Your task to perform on an android device: Go to internet settings Image 0: 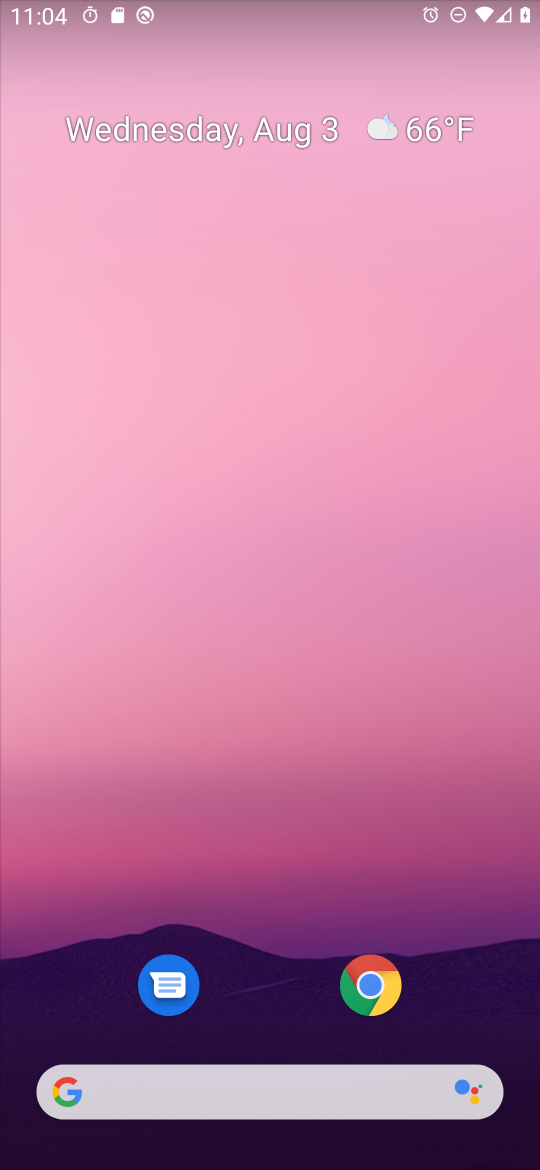
Step 0: drag from (301, 986) to (323, 294)
Your task to perform on an android device: Go to internet settings Image 1: 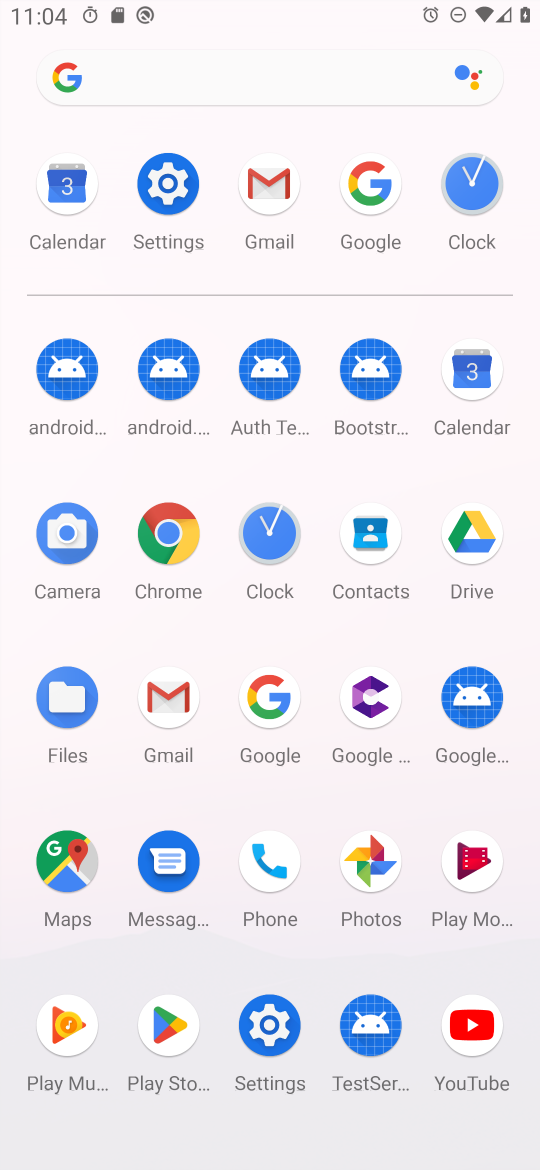
Step 1: click (191, 185)
Your task to perform on an android device: Go to internet settings Image 2: 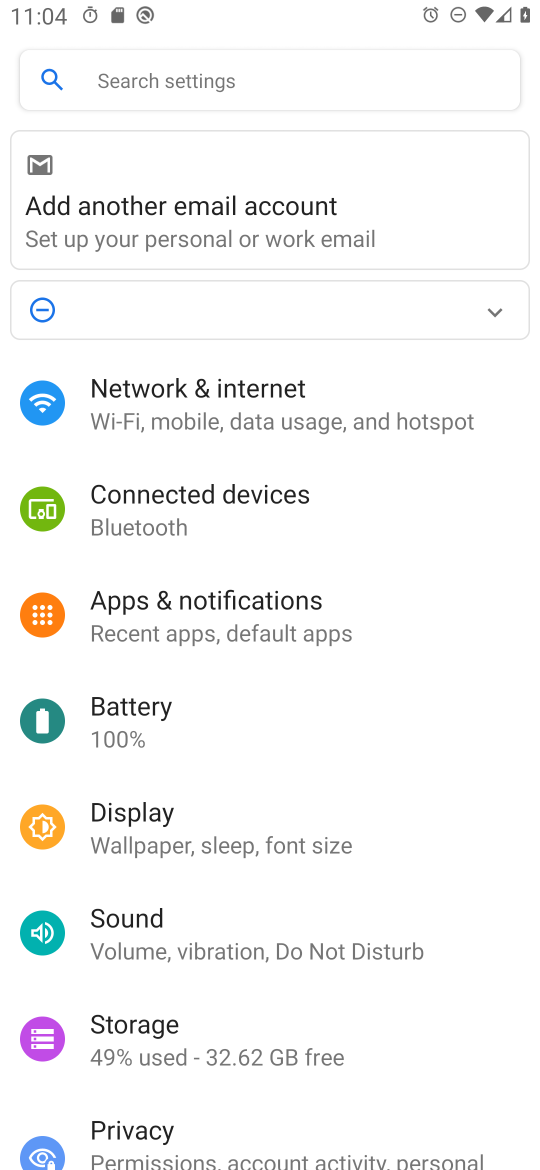
Step 2: click (290, 397)
Your task to perform on an android device: Go to internet settings Image 3: 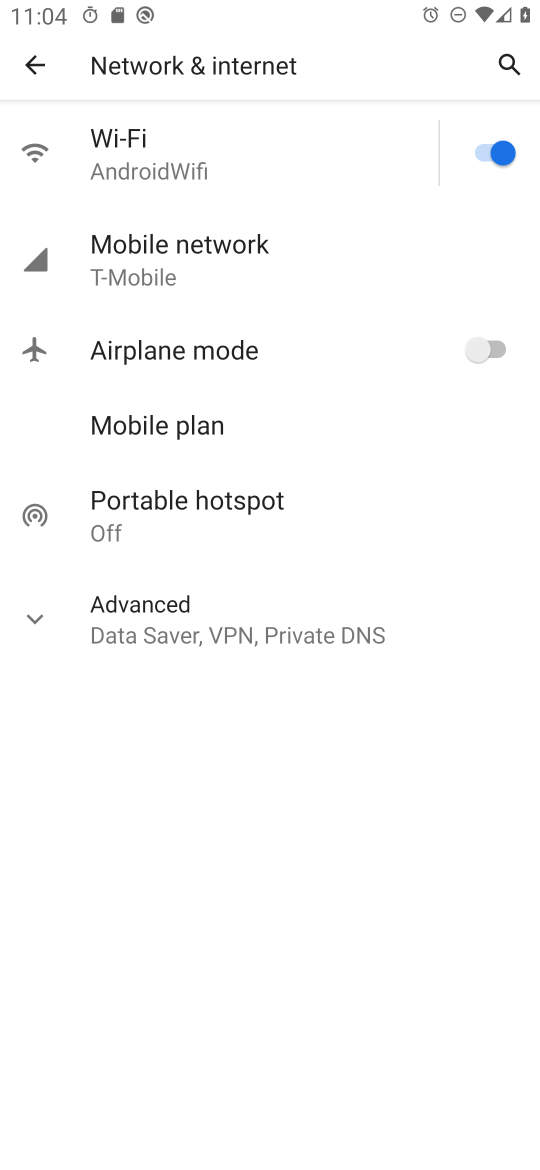
Step 3: task complete